Your task to perform on an android device: turn off wifi Image 0: 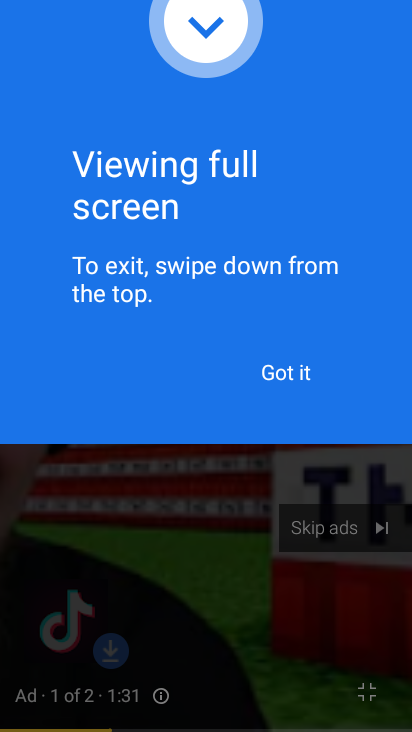
Step 0: press home button
Your task to perform on an android device: turn off wifi Image 1: 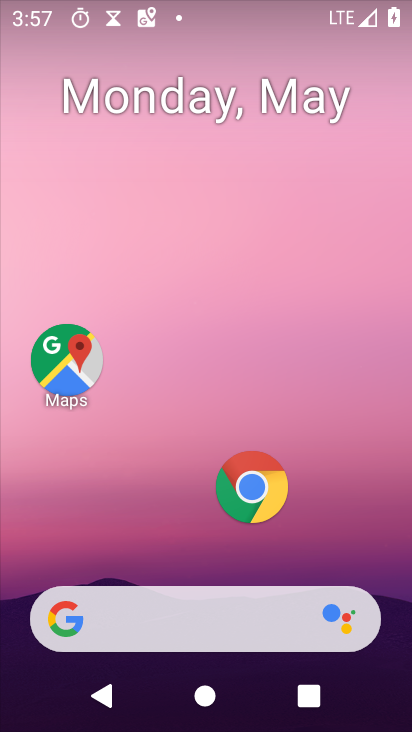
Step 1: drag from (174, 536) to (178, 9)
Your task to perform on an android device: turn off wifi Image 2: 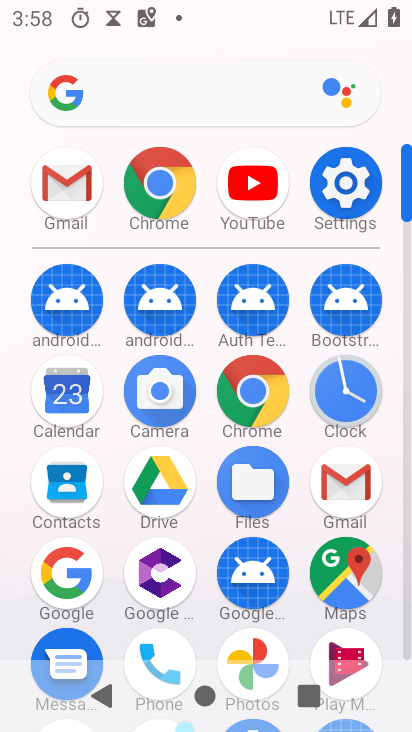
Step 2: click (340, 172)
Your task to perform on an android device: turn off wifi Image 3: 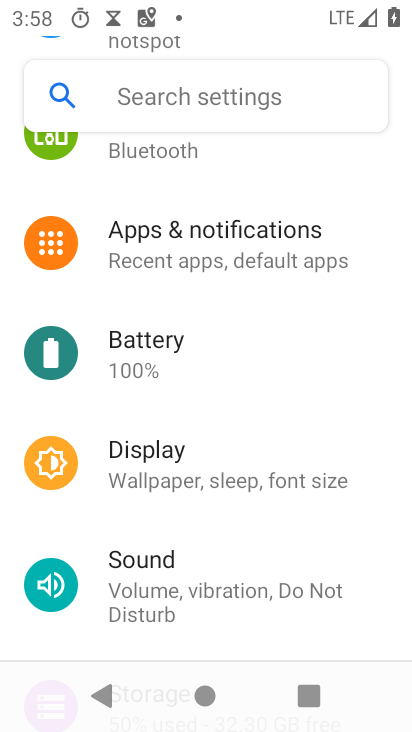
Step 3: drag from (216, 276) to (283, 675)
Your task to perform on an android device: turn off wifi Image 4: 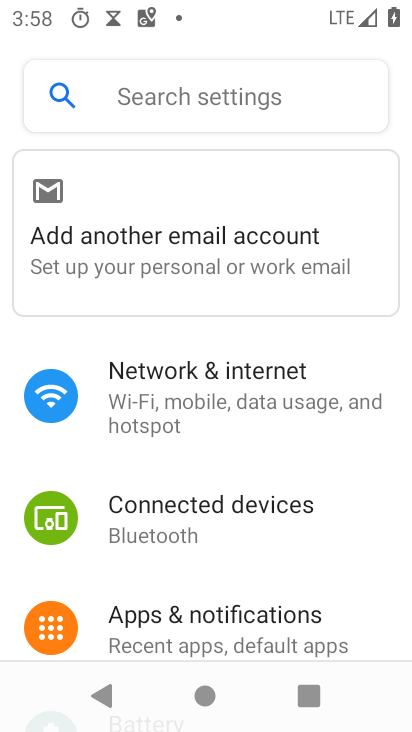
Step 4: click (221, 376)
Your task to perform on an android device: turn off wifi Image 5: 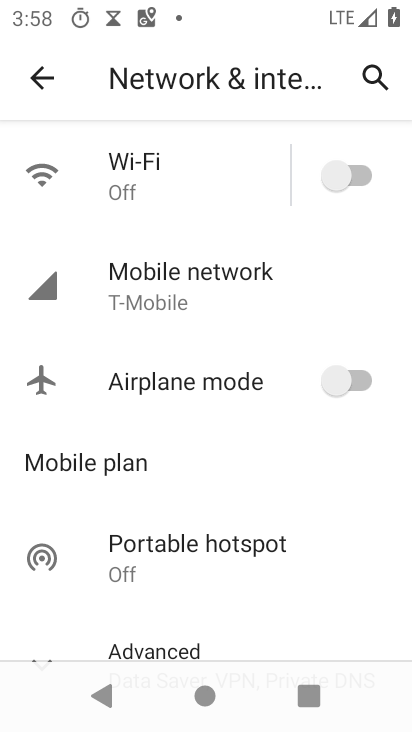
Step 5: task complete